Your task to perform on an android device: View the shopping cart on ebay. Add rayovac triple a to the cart on ebay Image 0: 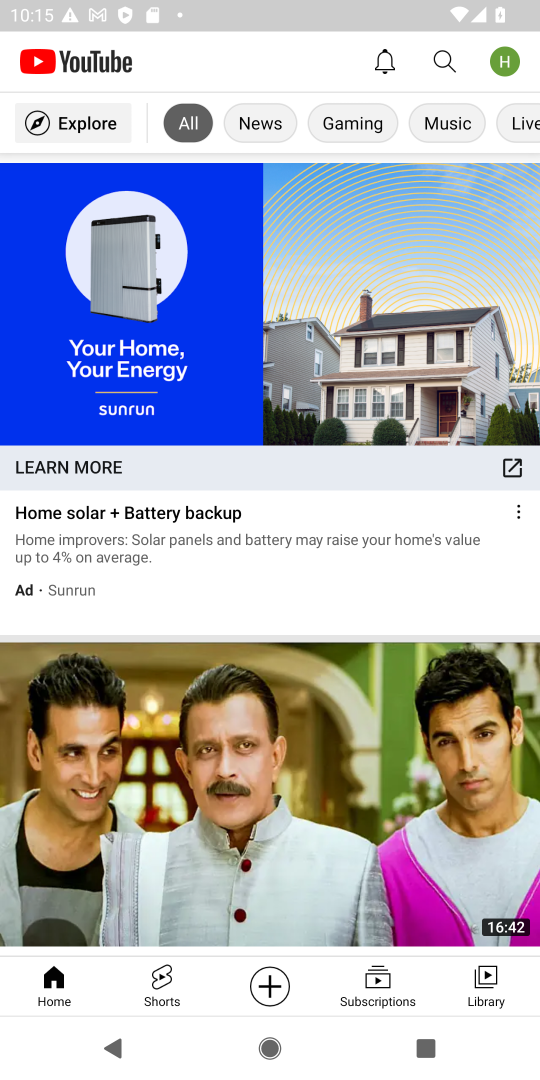
Step 0: press home button
Your task to perform on an android device: View the shopping cart on ebay. Add rayovac triple a to the cart on ebay Image 1: 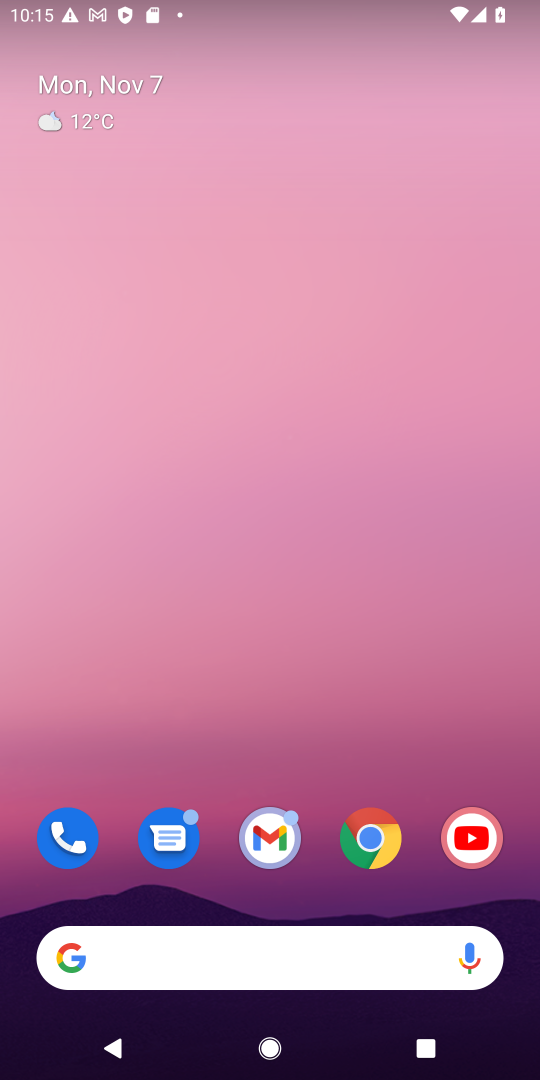
Step 1: click (364, 845)
Your task to perform on an android device: View the shopping cart on ebay. Add rayovac triple a to the cart on ebay Image 2: 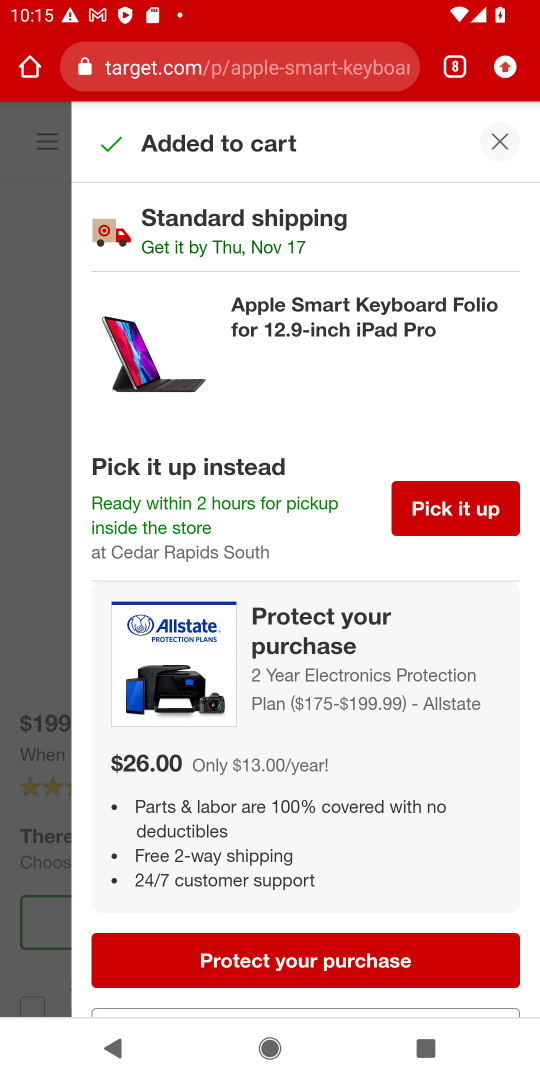
Step 2: click (453, 65)
Your task to perform on an android device: View the shopping cart on ebay. Add rayovac triple a to the cart on ebay Image 3: 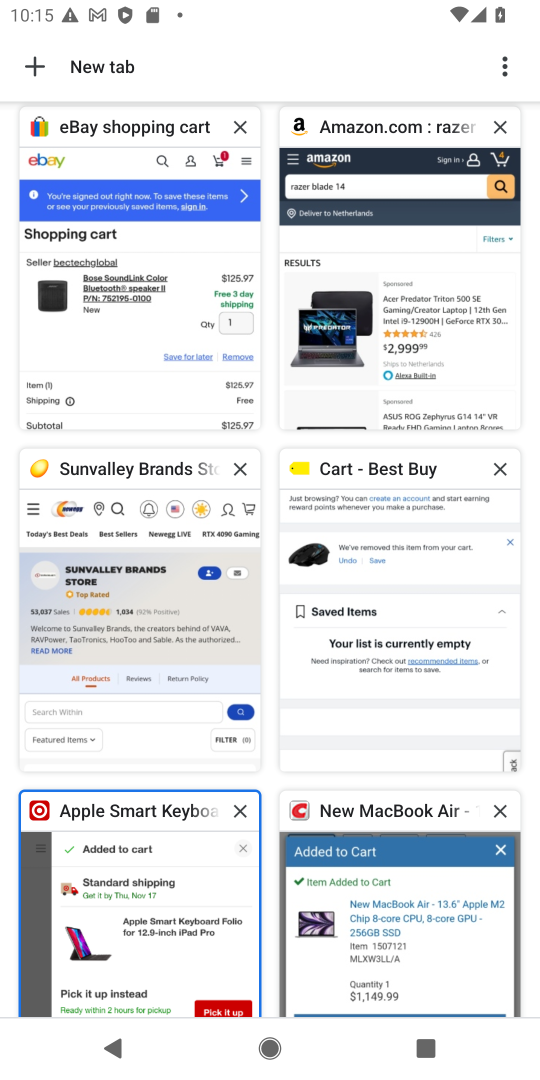
Step 3: click (99, 264)
Your task to perform on an android device: View the shopping cart on ebay. Add rayovac triple a to the cart on ebay Image 4: 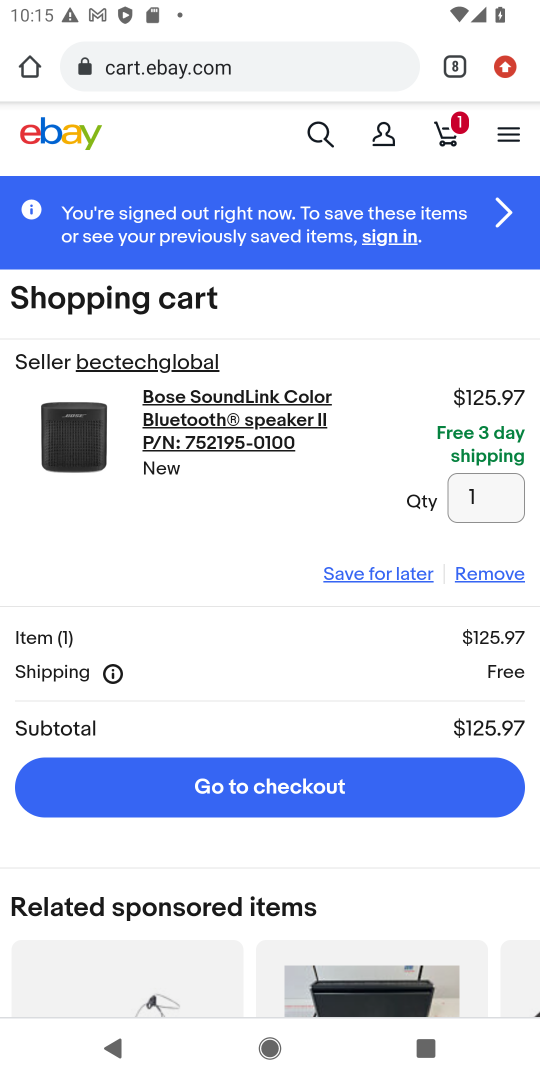
Step 4: click (326, 127)
Your task to perform on an android device: View the shopping cart on ebay. Add rayovac triple a to the cart on ebay Image 5: 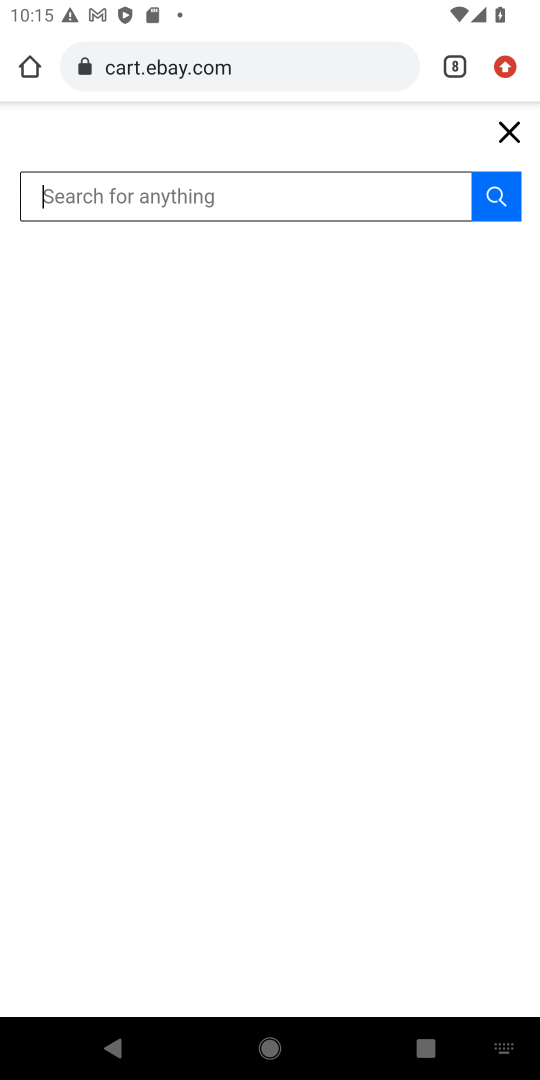
Step 5: type "rayovac triple a"
Your task to perform on an android device: View the shopping cart on ebay. Add rayovac triple a to the cart on ebay Image 6: 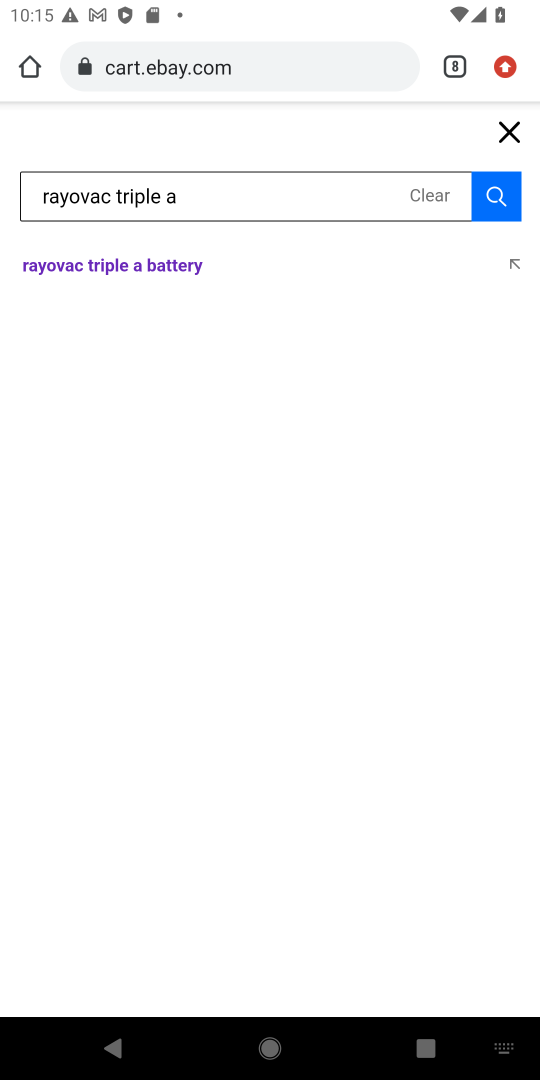
Step 6: click (191, 263)
Your task to perform on an android device: View the shopping cart on ebay. Add rayovac triple a to the cart on ebay Image 7: 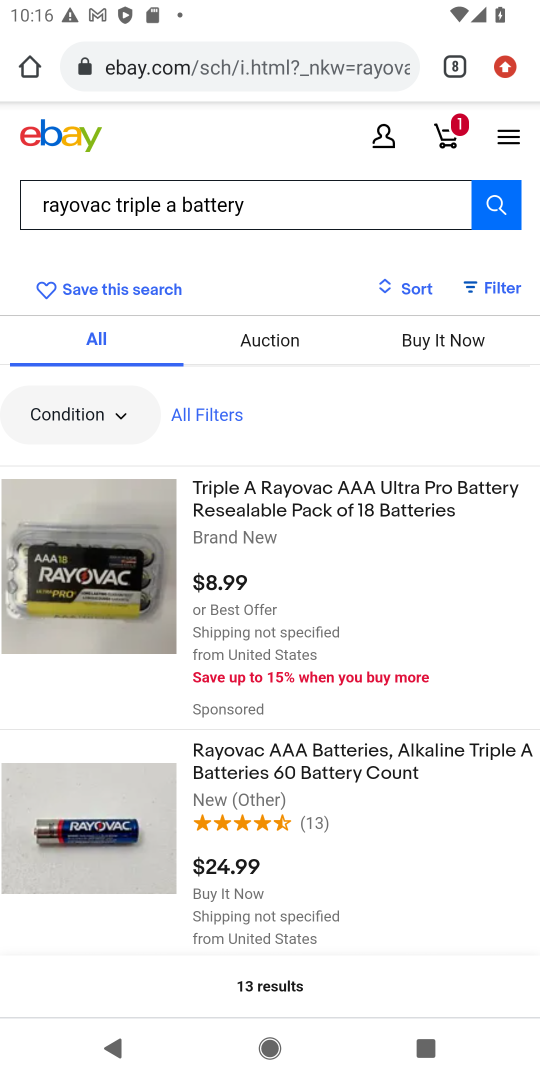
Step 7: click (255, 514)
Your task to perform on an android device: View the shopping cart on ebay. Add rayovac triple a to the cart on ebay Image 8: 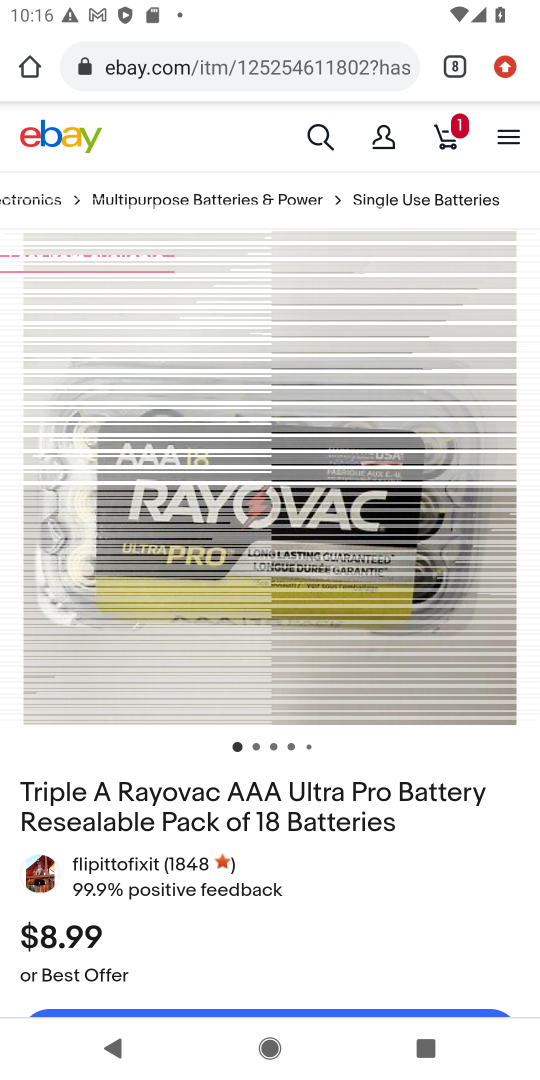
Step 8: drag from (267, 967) to (367, 118)
Your task to perform on an android device: View the shopping cart on ebay. Add rayovac triple a to the cart on ebay Image 9: 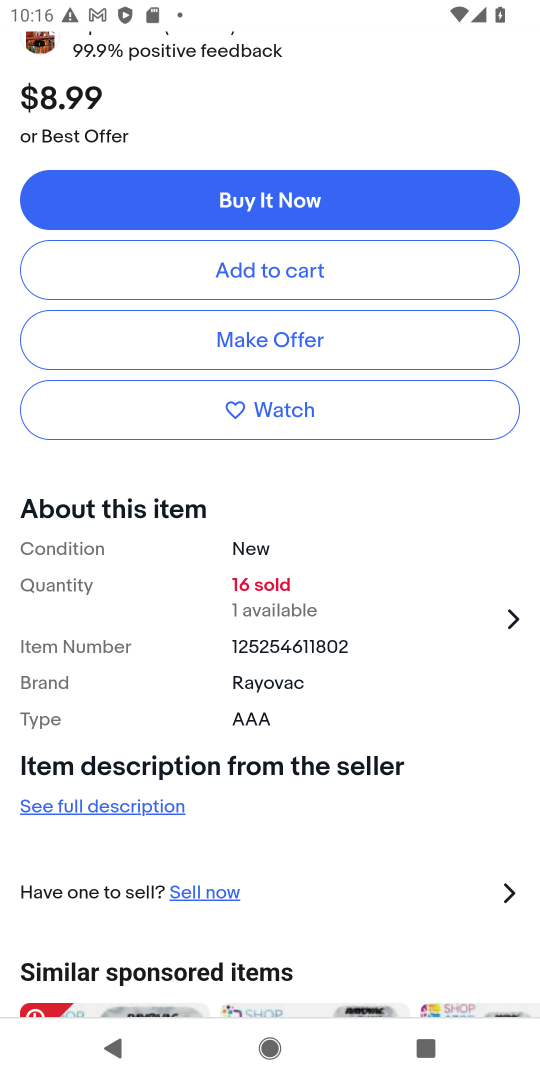
Step 9: click (241, 279)
Your task to perform on an android device: View the shopping cart on ebay. Add rayovac triple a to the cart on ebay Image 10: 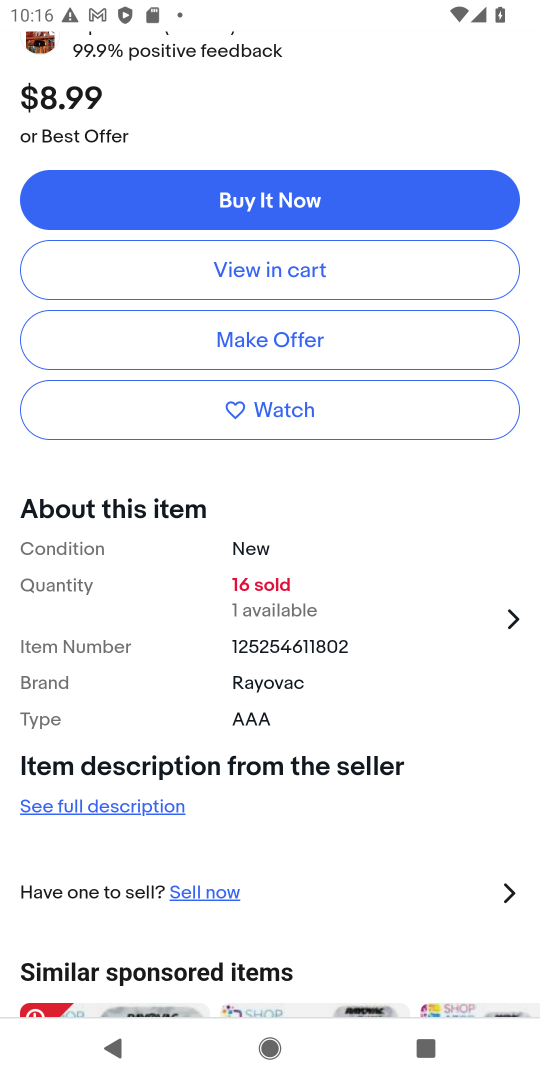
Step 10: task complete